Your task to perform on an android device: Open maps Image 0: 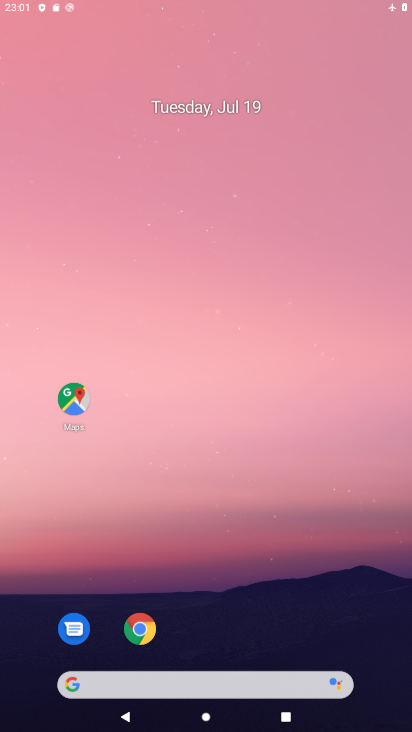
Step 0: press home button
Your task to perform on an android device: Open maps Image 1: 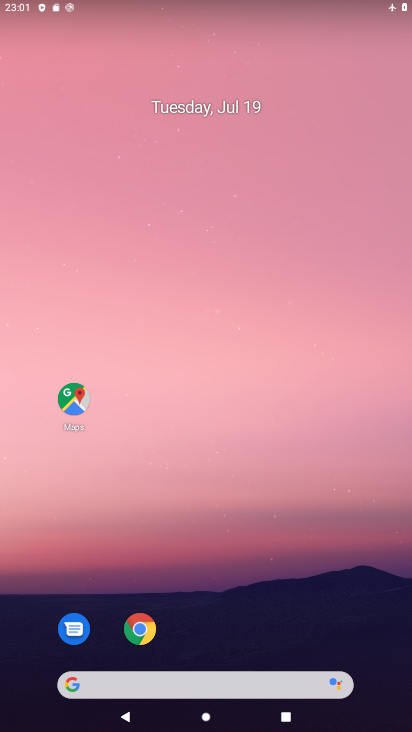
Step 1: drag from (207, 630) to (283, 152)
Your task to perform on an android device: Open maps Image 2: 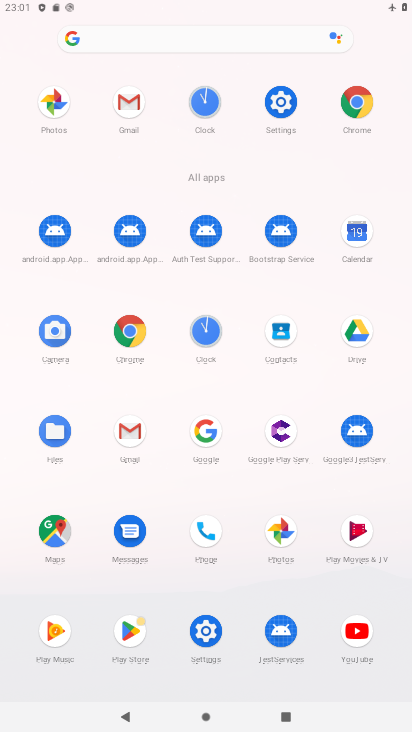
Step 2: click (43, 530)
Your task to perform on an android device: Open maps Image 3: 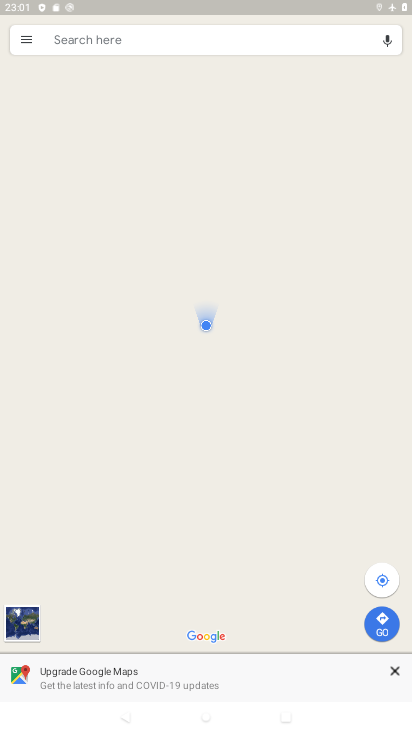
Step 3: click (393, 668)
Your task to perform on an android device: Open maps Image 4: 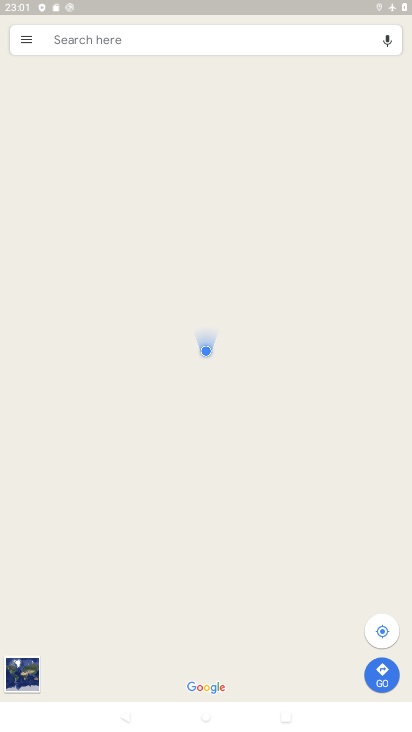
Step 4: click (377, 628)
Your task to perform on an android device: Open maps Image 5: 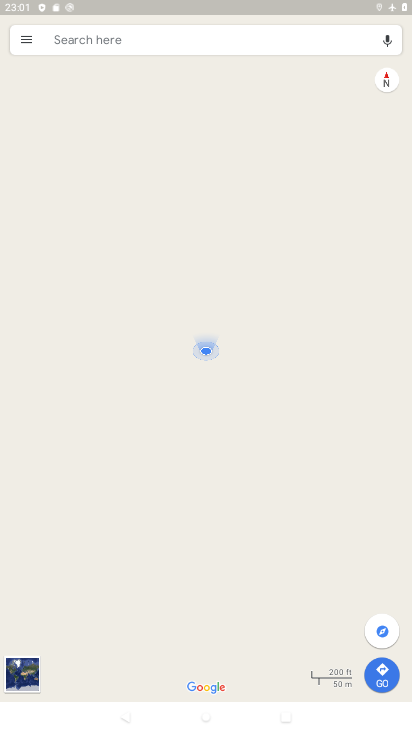
Step 5: task complete